Your task to perform on an android device: Turn off the flashlight Image 0: 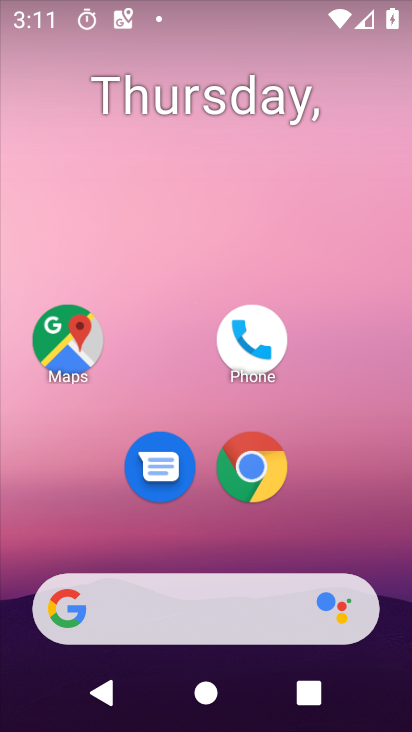
Step 0: drag from (216, 535) to (214, 130)
Your task to perform on an android device: Turn off the flashlight Image 1: 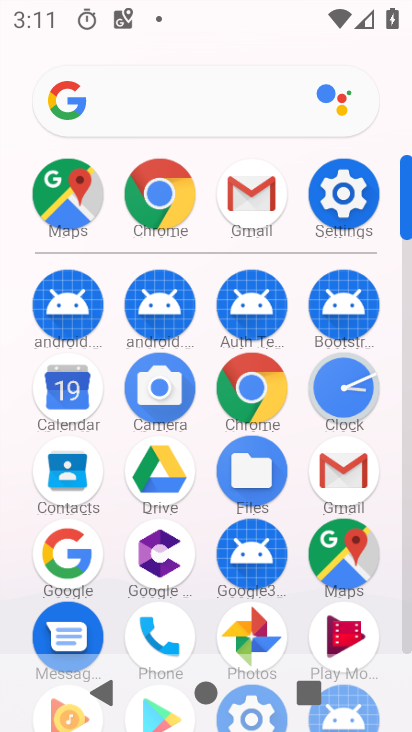
Step 1: click (325, 197)
Your task to perform on an android device: Turn off the flashlight Image 2: 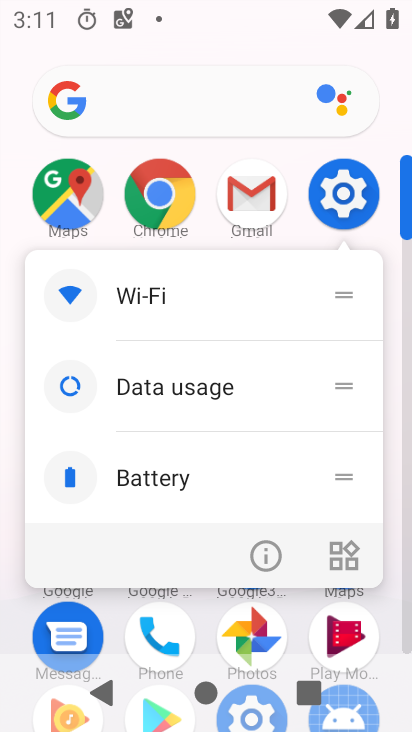
Step 2: click (263, 549)
Your task to perform on an android device: Turn off the flashlight Image 3: 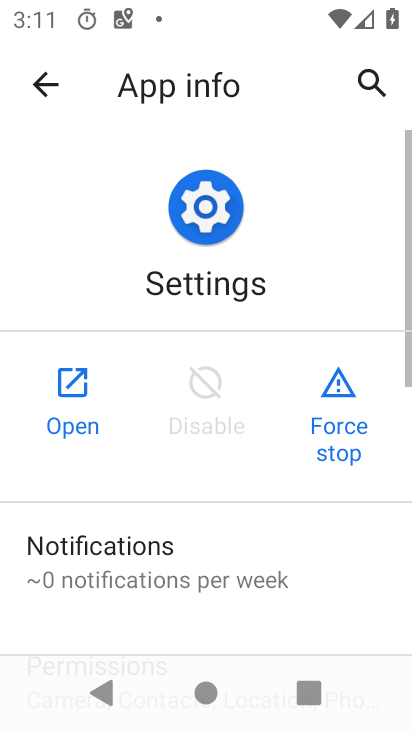
Step 3: click (66, 382)
Your task to perform on an android device: Turn off the flashlight Image 4: 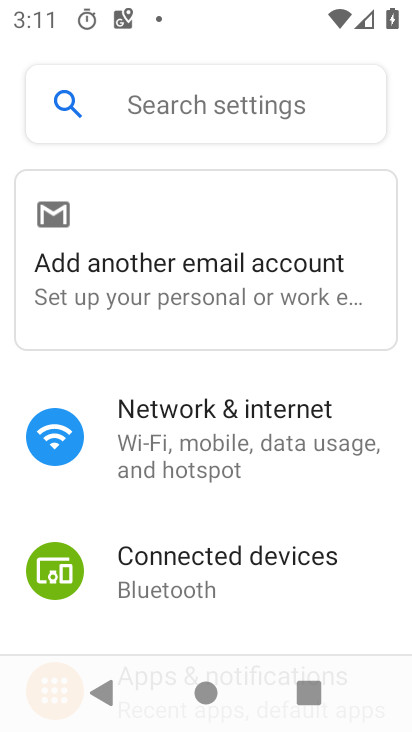
Step 4: click (198, 117)
Your task to perform on an android device: Turn off the flashlight Image 5: 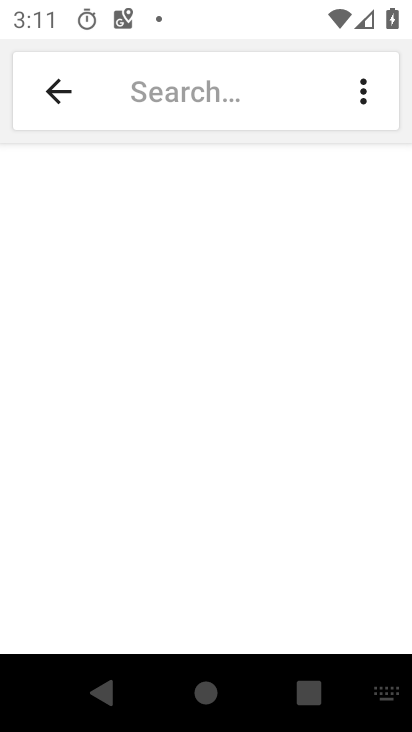
Step 5: click (141, 100)
Your task to perform on an android device: Turn off the flashlight Image 6: 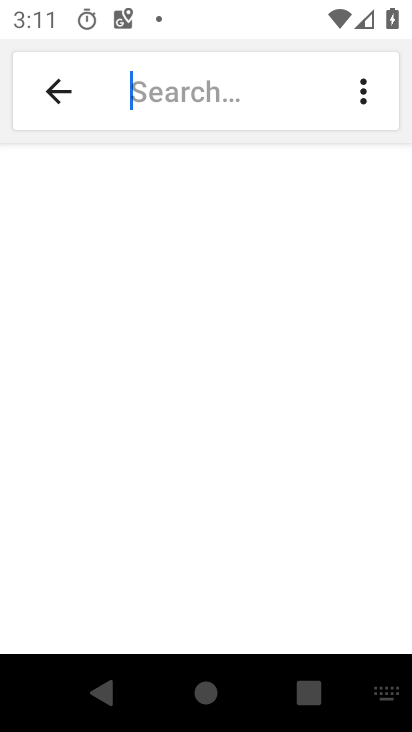
Step 6: type "flashlight"
Your task to perform on an android device: Turn off the flashlight Image 7: 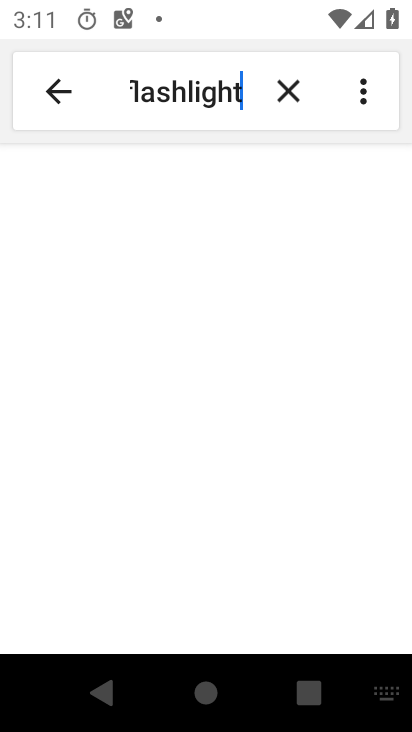
Step 7: type ""
Your task to perform on an android device: Turn off the flashlight Image 8: 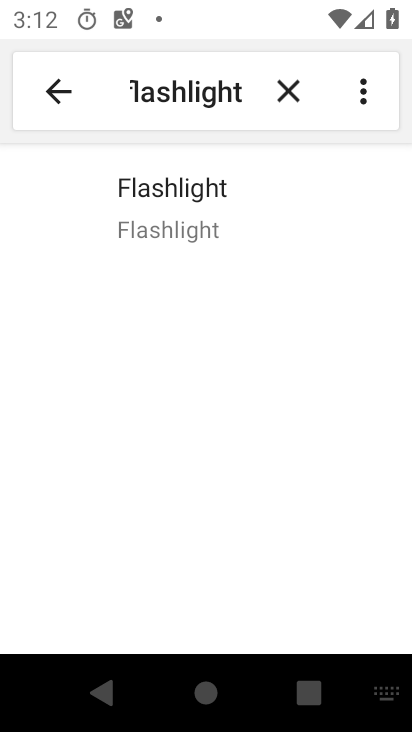
Step 8: click (227, 209)
Your task to perform on an android device: Turn off the flashlight Image 9: 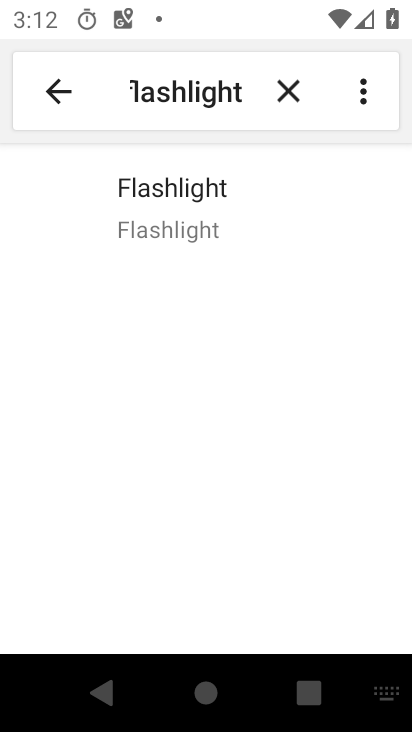
Step 9: task complete